Your task to perform on an android device: What's the weather? Image 0: 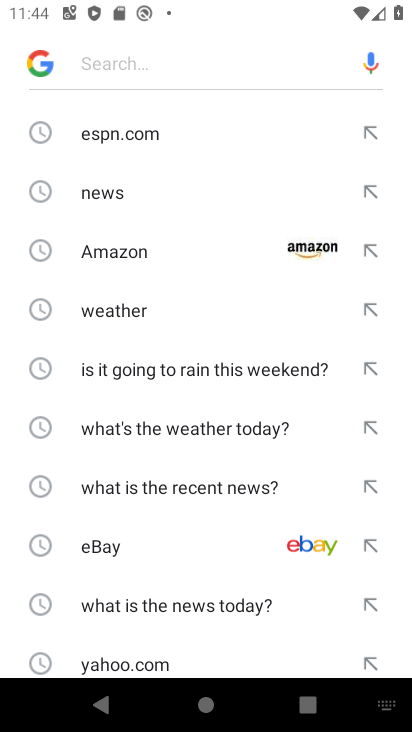
Step 0: click (105, 317)
Your task to perform on an android device: What's the weather? Image 1: 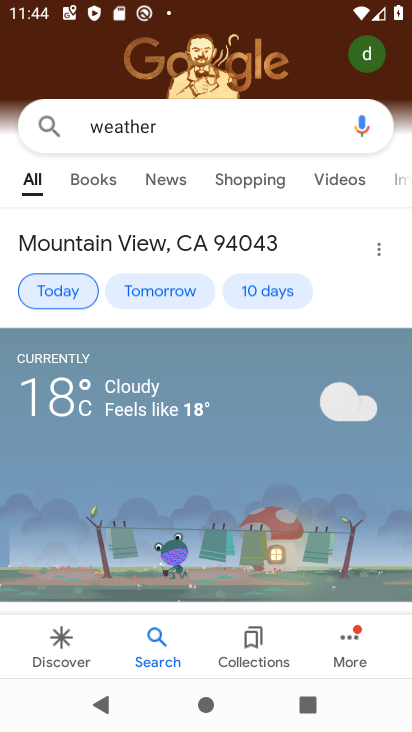
Step 1: task complete